Your task to perform on an android device: check the backup settings in the google photos Image 0: 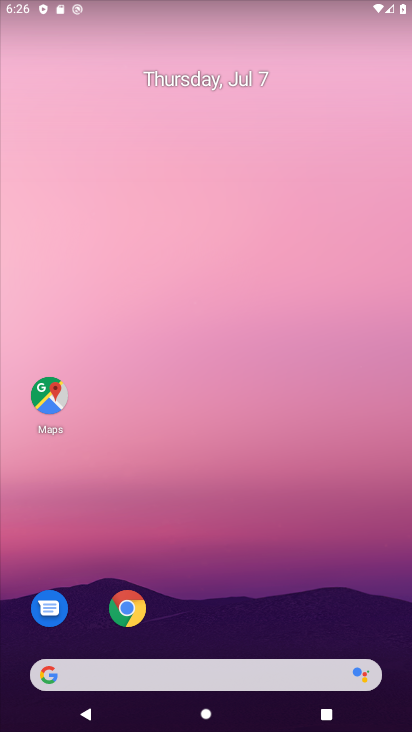
Step 0: drag from (201, 634) to (228, 31)
Your task to perform on an android device: check the backup settings in the google photos Image 1: 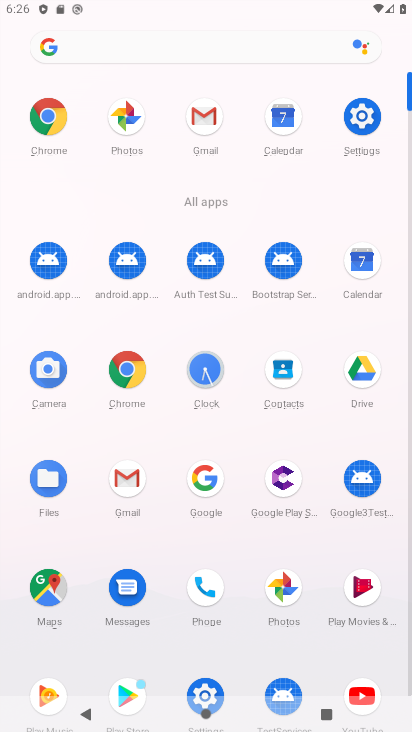
Step 1: click (288, 587)
Your task to perform on an android device: check the backup settings in the google photos Image 2: 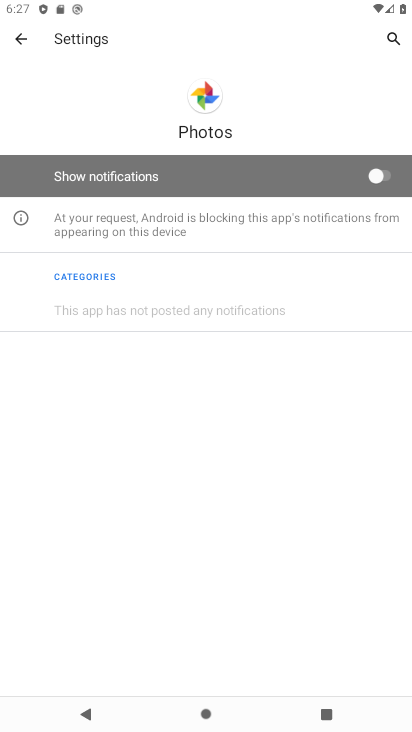
Step 2: click (20, 38)
Your task to perform on an android device: check the backup settings in the google photos Image 3: 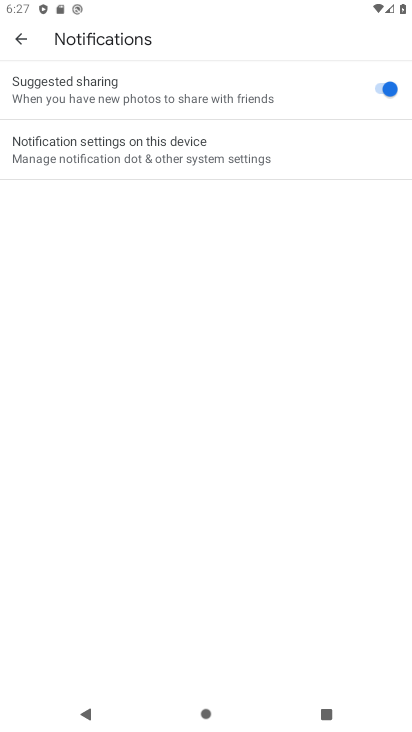
Step 3: click (22, 38)
Your task to perform on an android device: check the backup settings in the google photos Image 4: 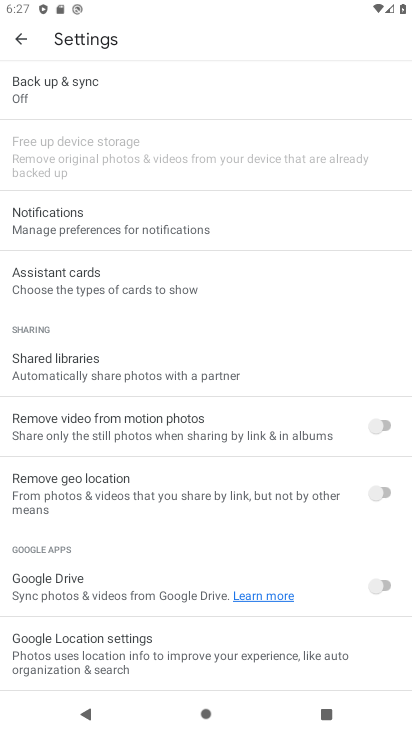
Step 4: click (87, 90)
Your task to perform on an android device: check the backup settings in the google photos Image 5: 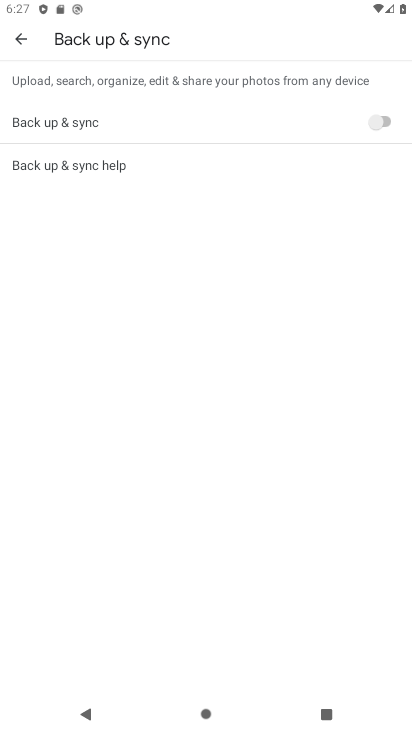
Step 5: task complete